Your task to perform on an android device: Show me recent news Image 0: 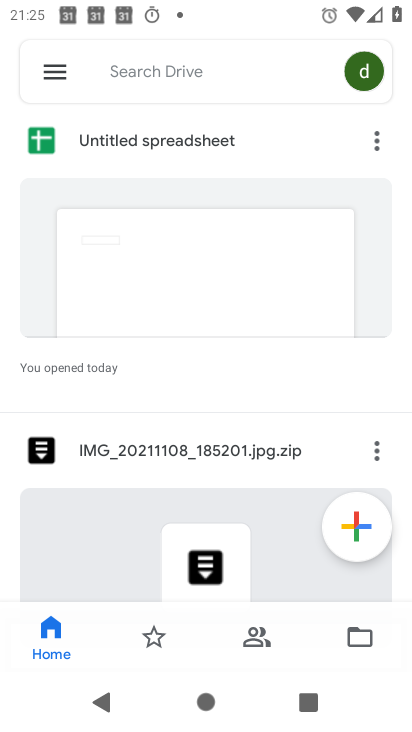
Step 0: press home button
Your task to perform on an android device: Show me recent news Image 1: 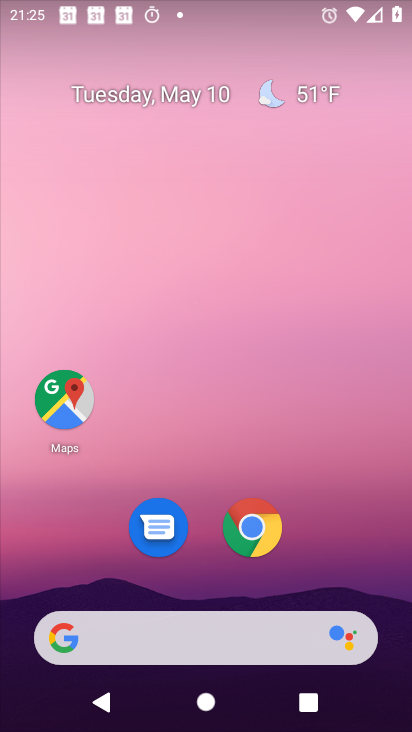
Step 1: task complete